Your task to perform on an android device: install app "Indeed Job Search" Image 0: 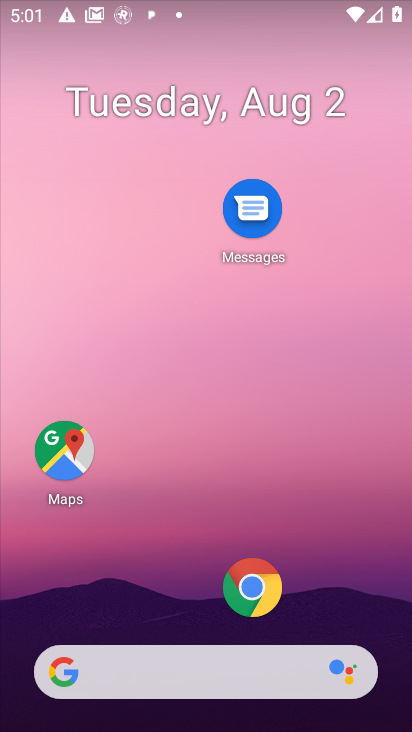
Step 0: drag from (161, 585) to (155, 109)
Your task to perform on an android device: install app "Indeed Job Search" Image 1: 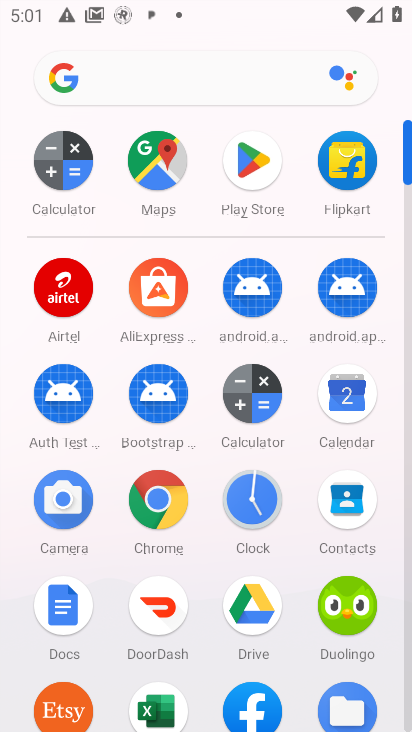
Step 1: click (275, 175)
Your task to perform on an android device: install app "Indeed Job Search" Image 2: 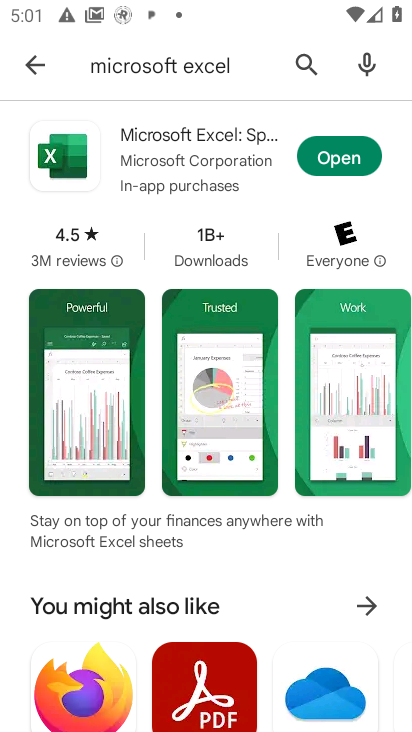
Step 2: drag from (299, 57) to (351, 57)
Your task to perform on an android device: install app "Indeed Job Search" Image 3: 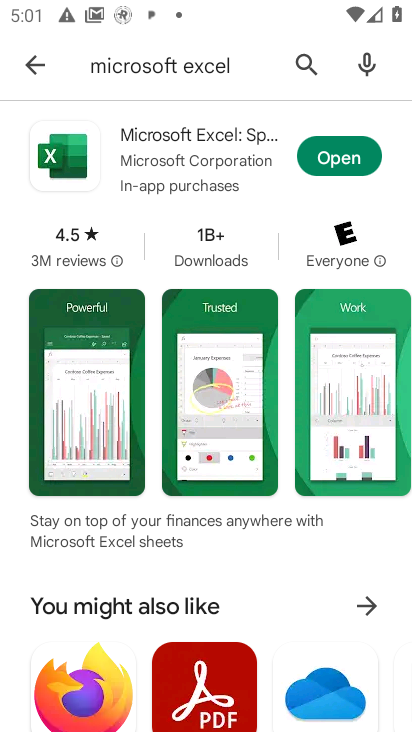
Step 3: click (304, 59)
Your task to perform on an android device: install app "Indeed Job Search" Image 4: 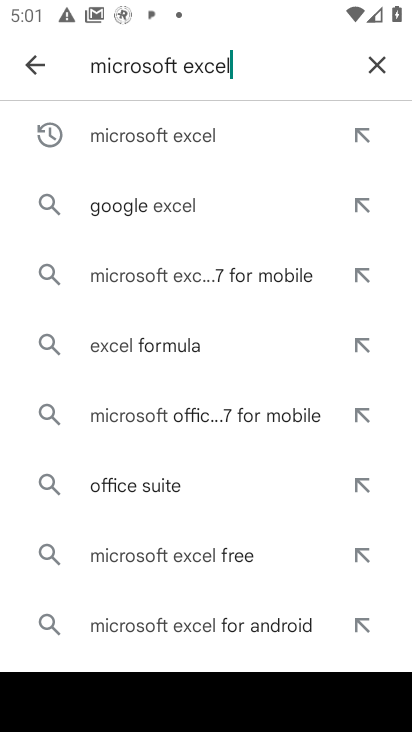
Step 4: click (374, 58)
Your task to perform on an android device: install app "Indeed Job Search" Image 5: 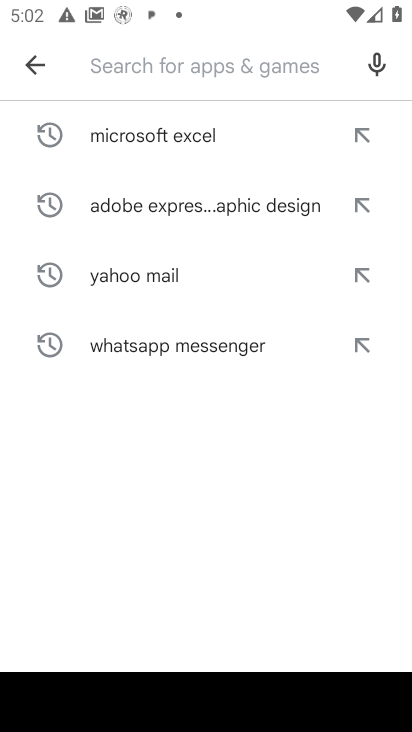
Step 5: type "Indeed Job Search"
Your task to perform on an android device: install app "Indeed Job Search" Image 6: 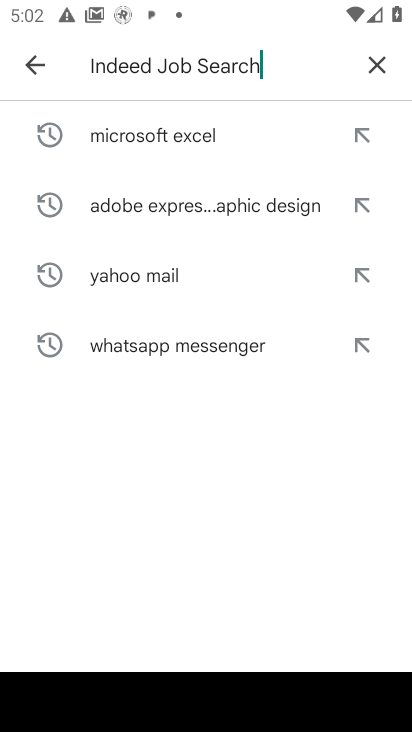
Step 6: type ""
Your task to perform on an android device: install app "Indeed Job Search" Image 7: 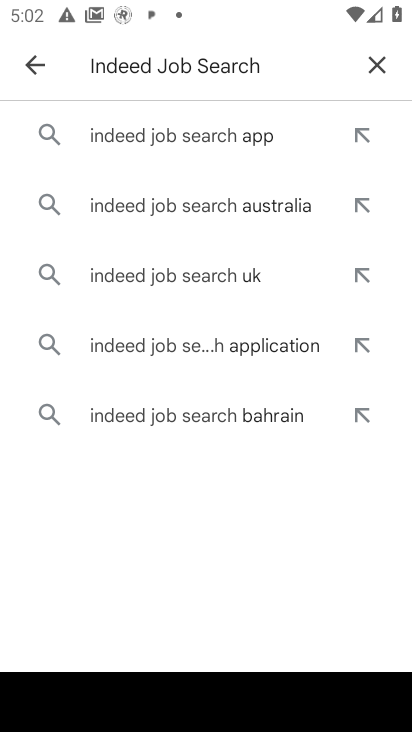
Step 7: click (191, 132)
Your task to perform on an android device: install app "Indeed Job Search" Image 8: 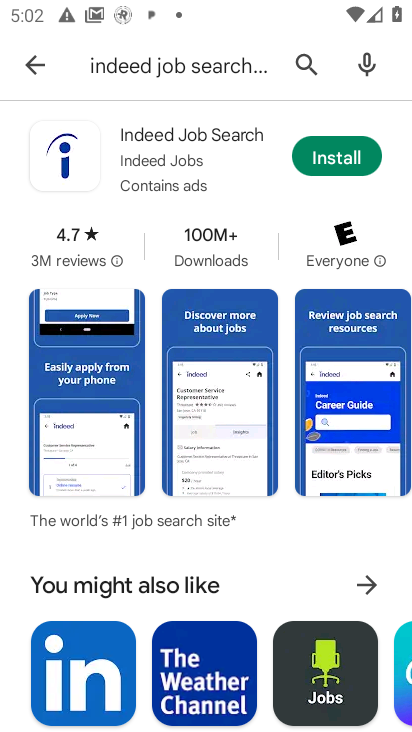
Step 8: click (350, 151)
Your task to perform on an android device: install app "Indeed Job Search" Image 9: 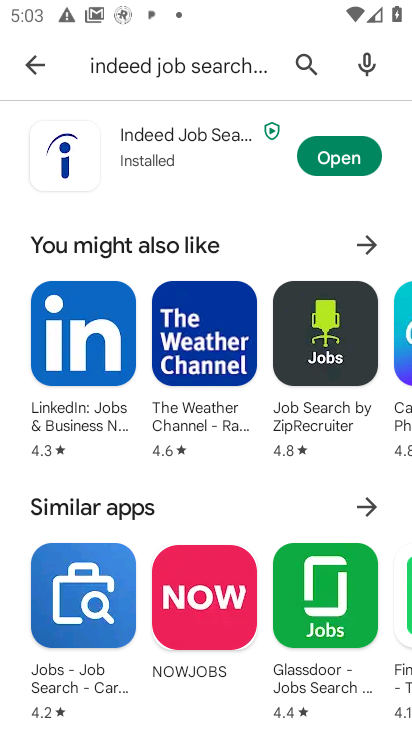
Step 9: task complete